Your task to perform on an android device: open chrome and create a bookmark for the current page Image 0: 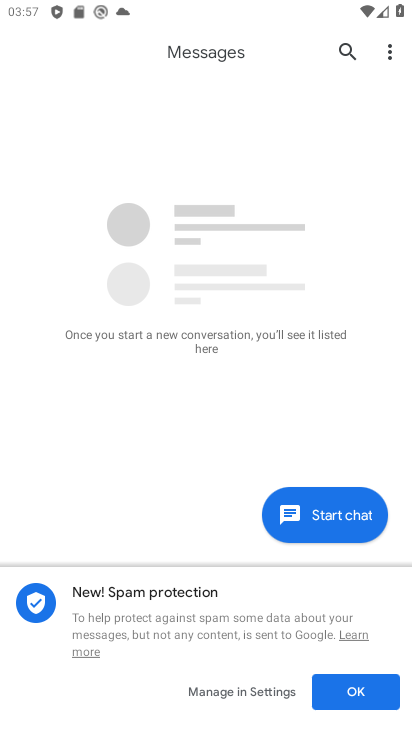
Step 0: press home button
Your task to perform on an android device: open chrome and create a bookmark for the current page Image 1: 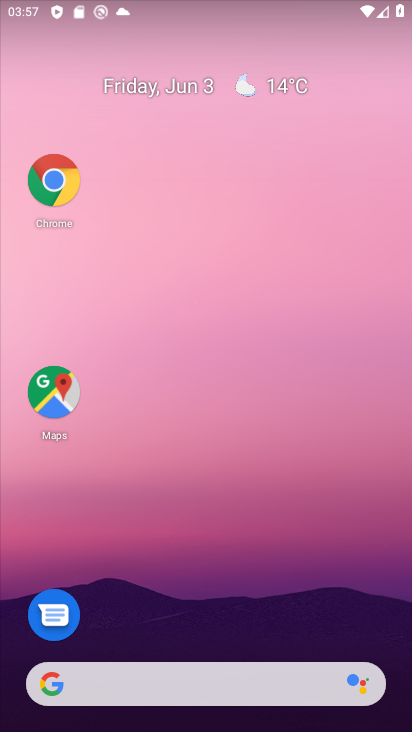
Step 1: click (58, 199)
Your task to perform on an android device: open chrome and create a bookmark for the current page Image 2: 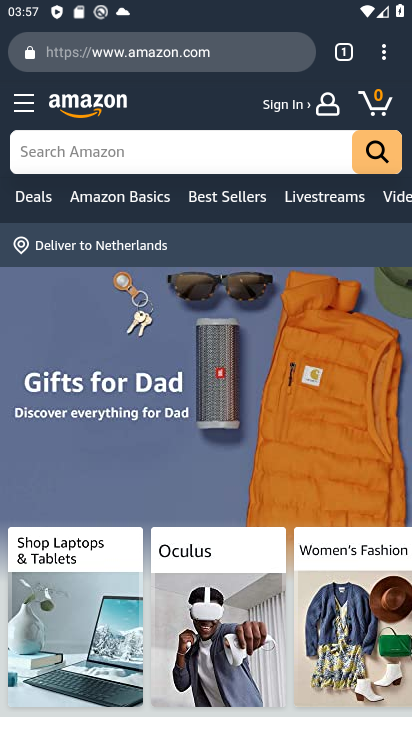
Step 2: click (382, 47)
Your task to perform on an android device: open chrome and create a bookmark for the current page Image 3: 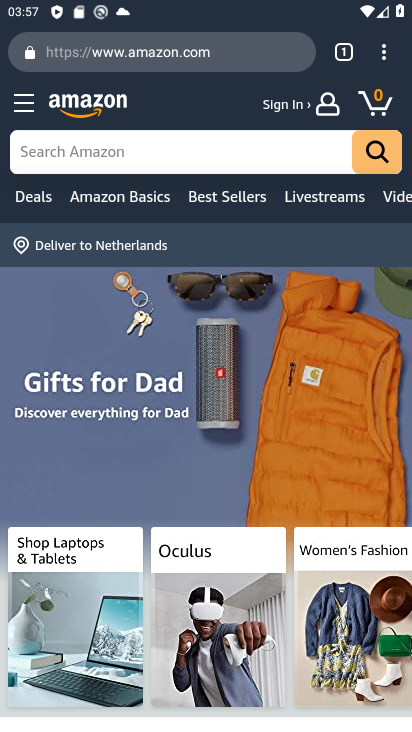
Step 3: click (387, 60)
Your task to perform on an android device: open chrome and create a bookmark for the current page Image 4: 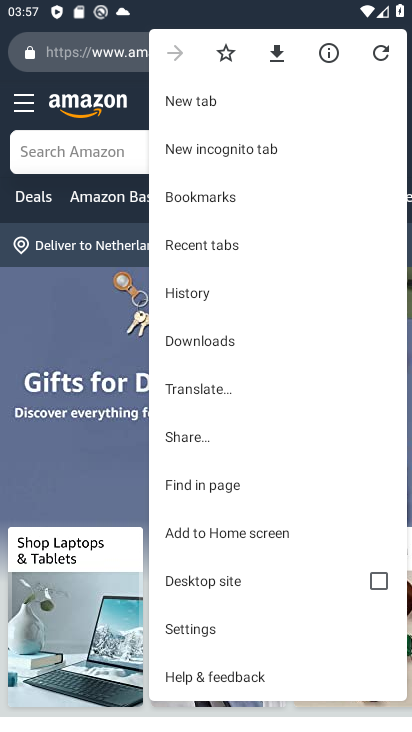
Step 4: click (229, 55)
Your task to perform on an android device: open chrome and create a bookmark for the current page Image 5: 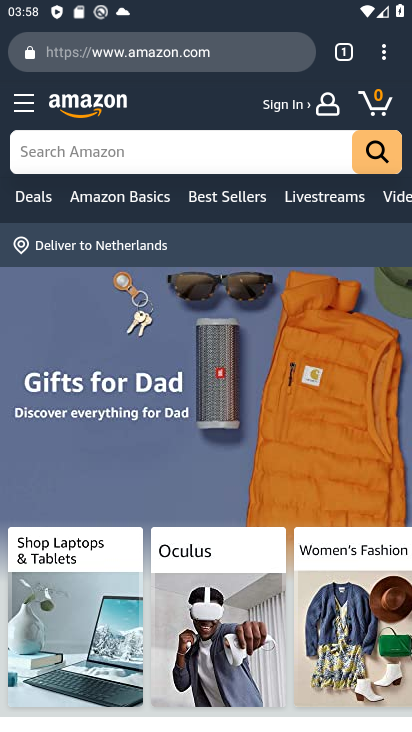
Step 5: task complete